Your task to perform on an android device: Toggle the flashlight Image 0: 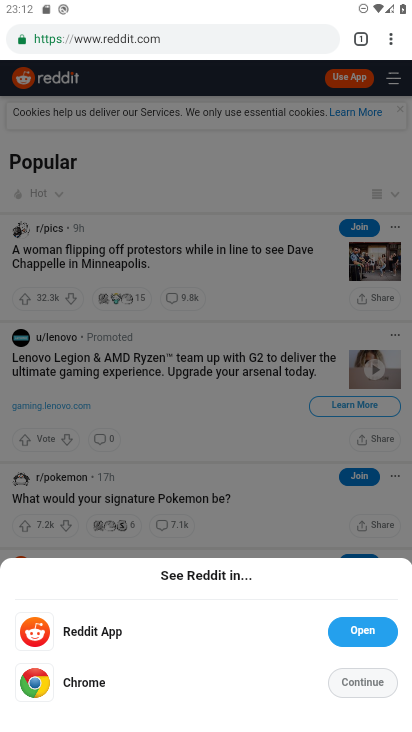
Step 0: drag from (208, 6) to (165, 585)
Your task to perform on an android device: Toggle the flashlight Image 1: 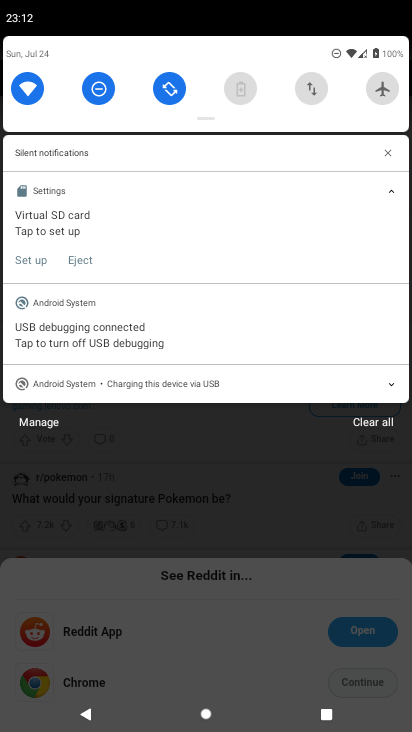
Step 1: drag from (205, 115) to (209, 398)
Your task to perform on an android device: Toggle the flashlight Image 2: 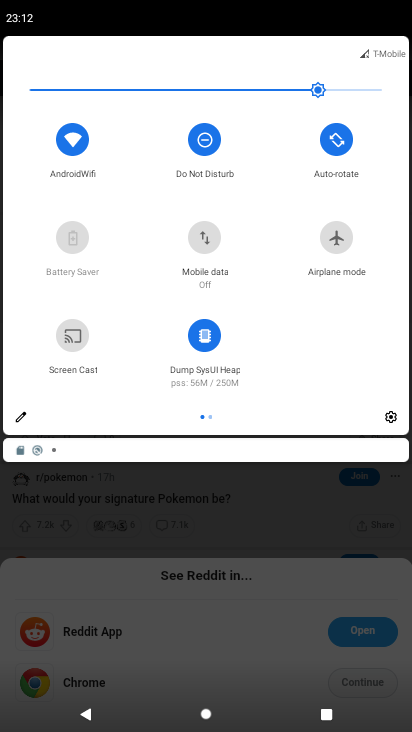
Step 2: click (21, 417)
Your task to perform on an android device: Toggle the flashlight Image 3: 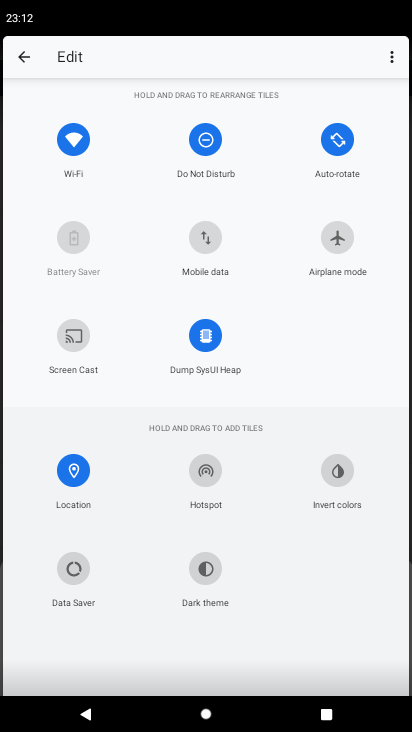
Step 3: task complete